Your task to perform on an android device: Open Google Chrome and click the shortcut for Amazon.com Image 0: 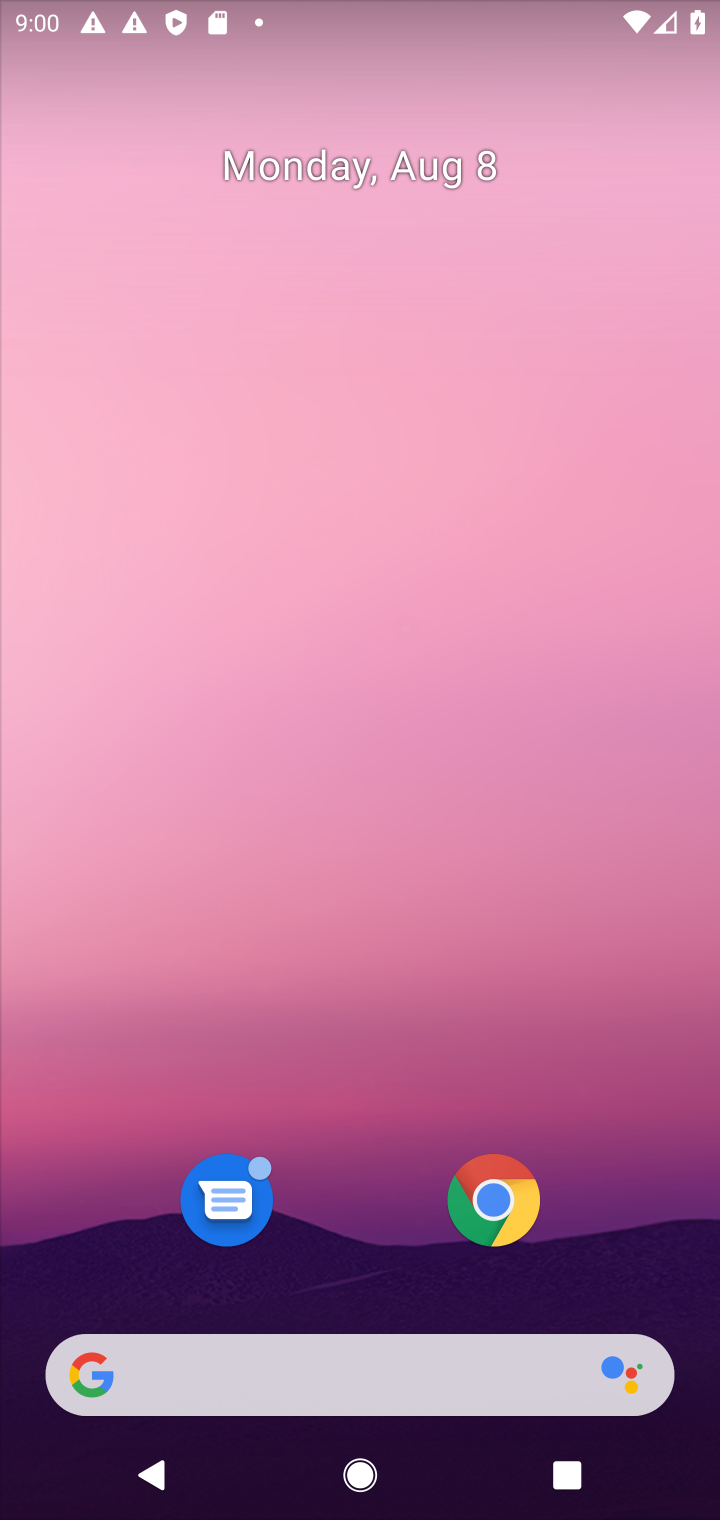
Step 0: click (493, 1191)
Your task to perform on an android device: Open Google Chrome and click the shortcut for Amazon.com Image 1: 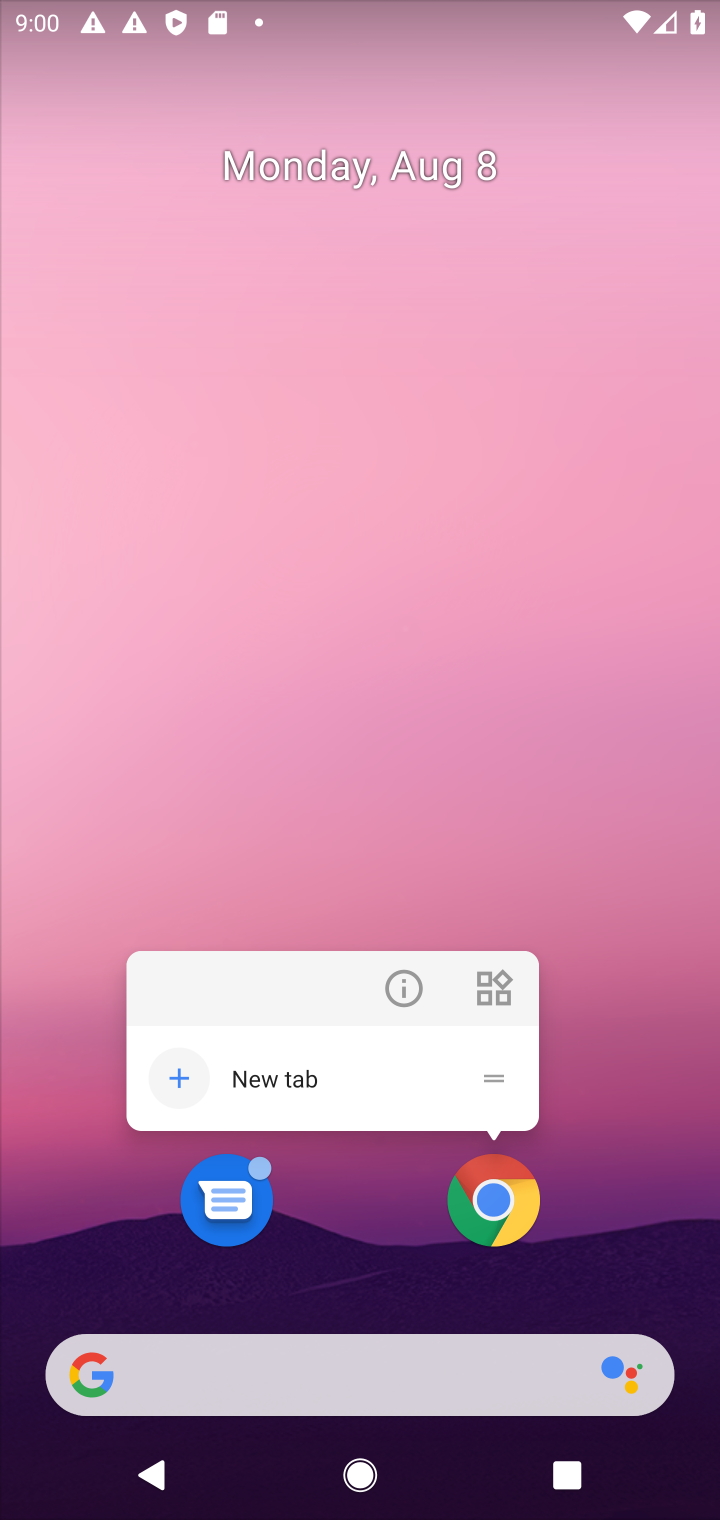
Step 1: click (493, 1193)
Your task to perform on an android device: Open Google Chrome and click the shortcut for Amazon.com Image 2: 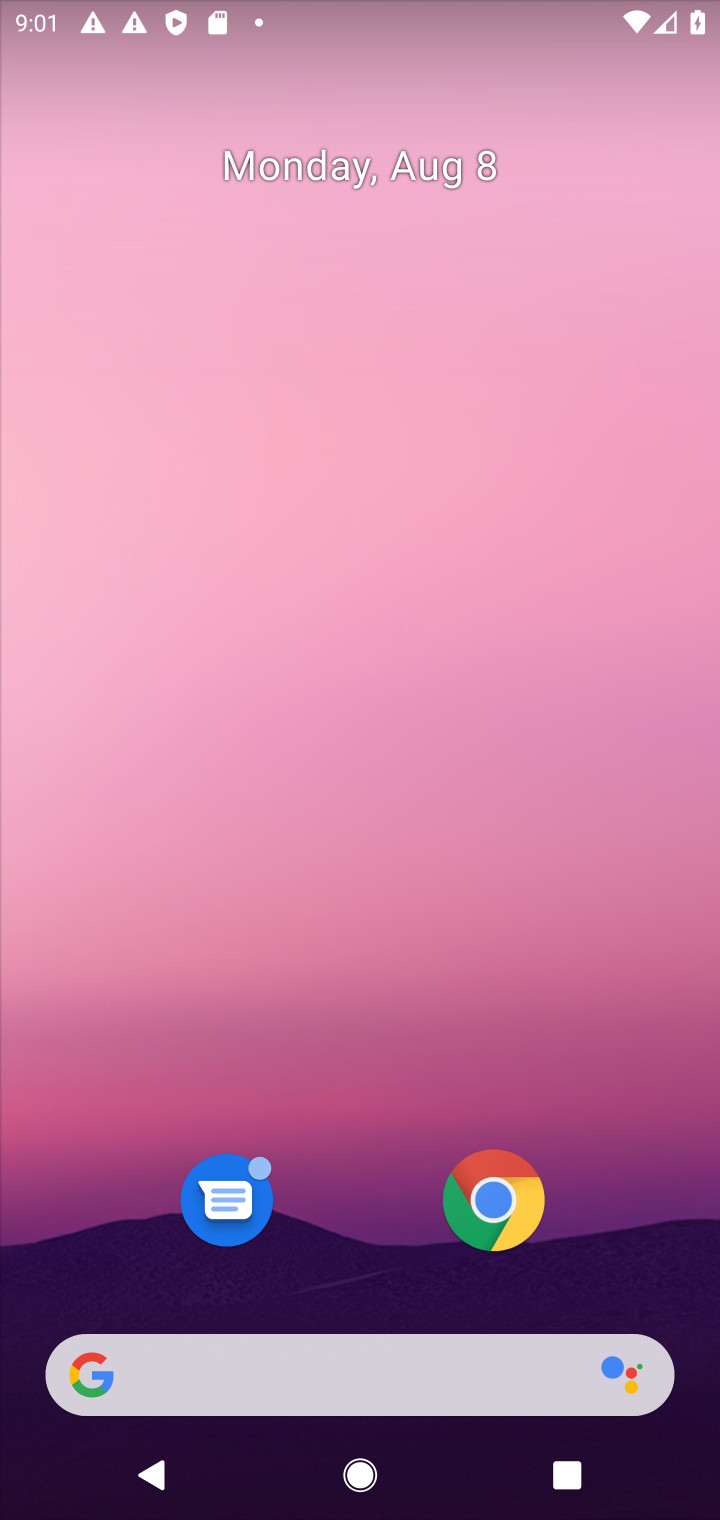
Step 2: click (493, 1198)
Your task to perform on an android device: Open Google Chrome and click the shortcut for Amazon.com Image 3: 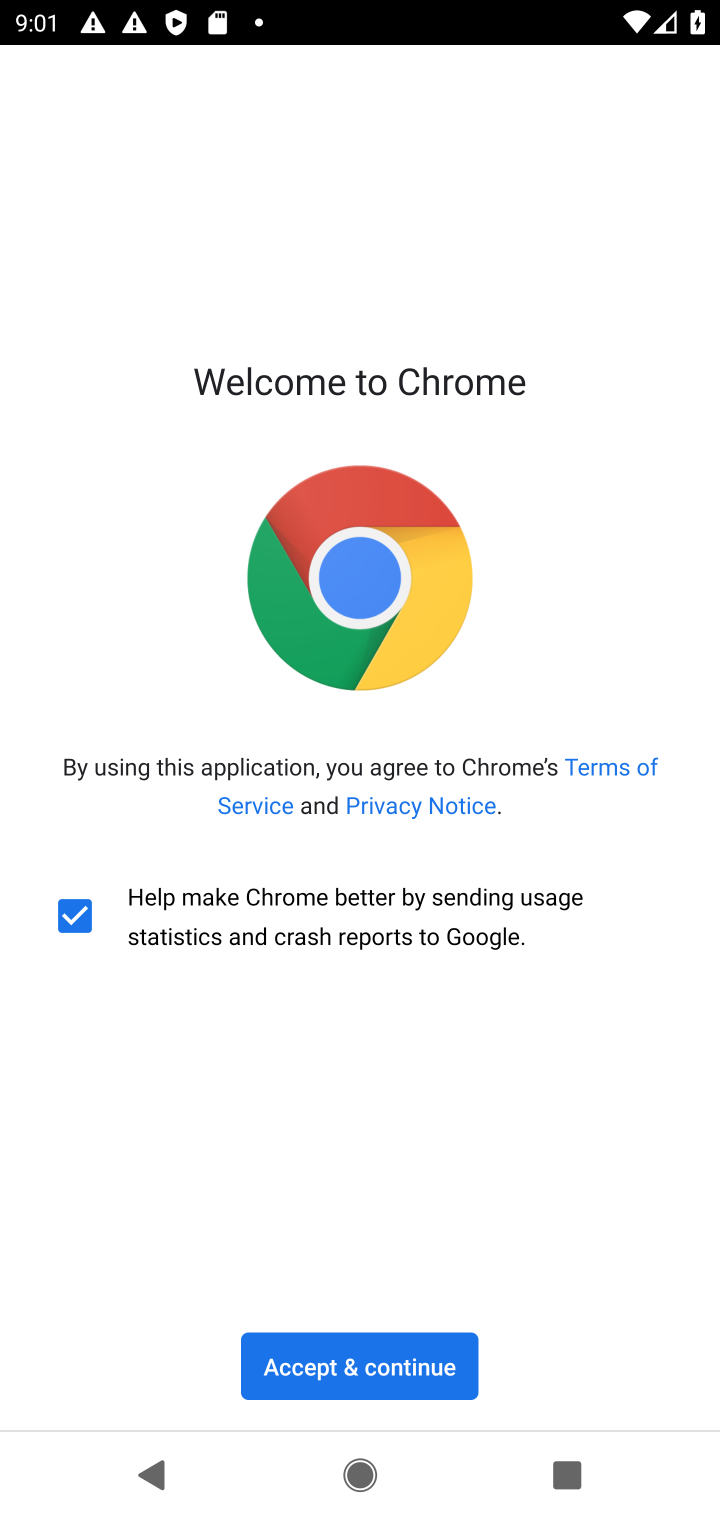
Step 3: click (343, 1352)
Your task to perform on an android device: Open Google Chrome and click the shortcut for Amazon.com Image 4: 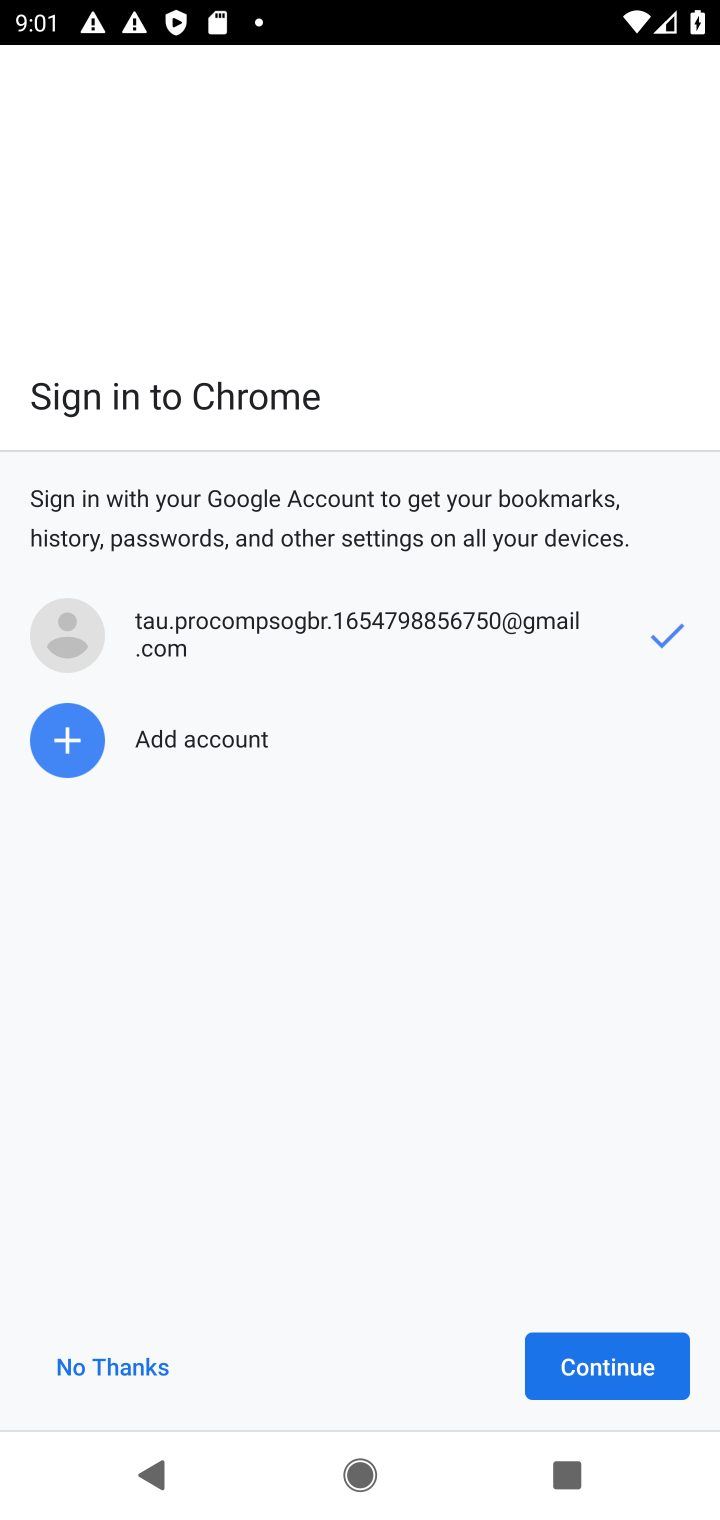
Step 4: click (594, 1359)
Your task to perform on an android device: Open Google Chrome and click the shortcut for Amazon.com Image 5: 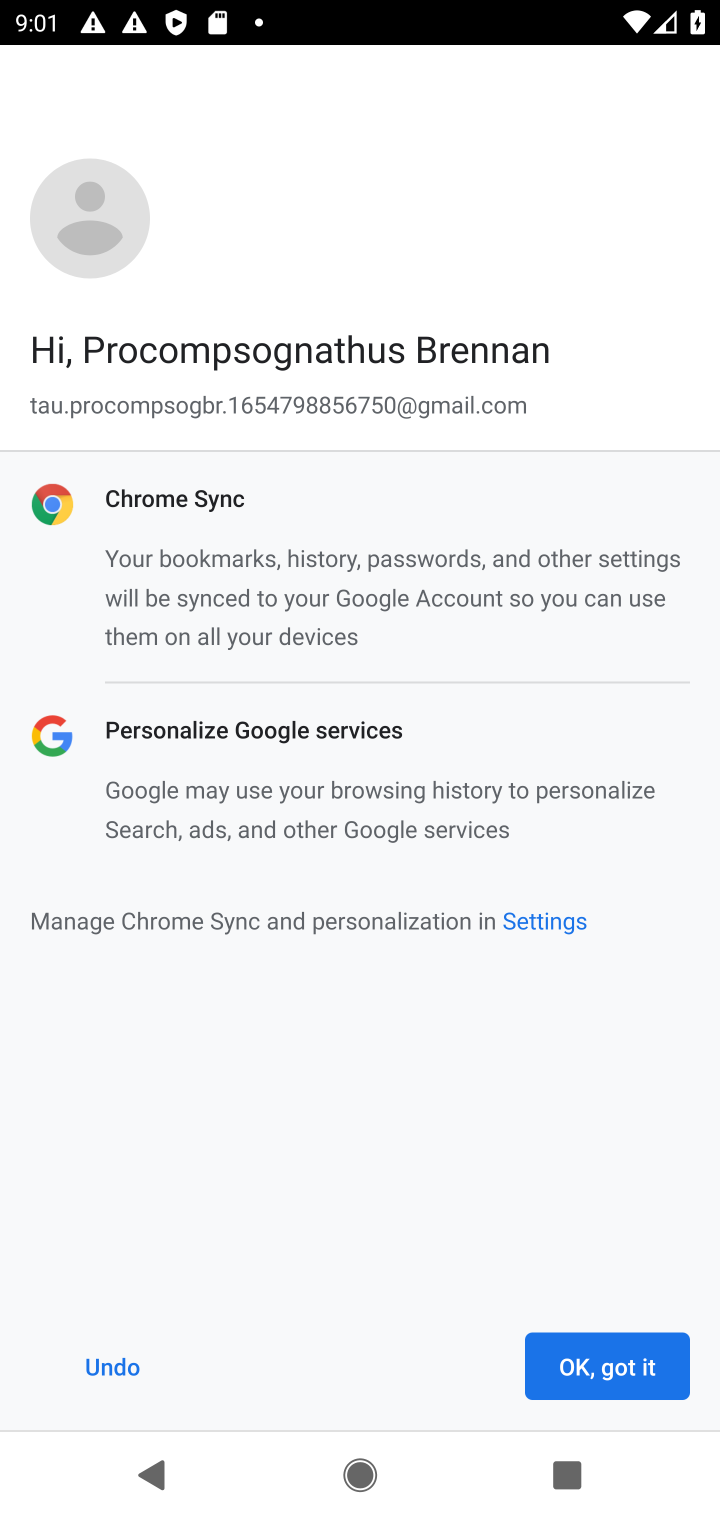
Step 5: click (634, 1362)
Your task to perform on an android device: Open Google Chrome and click the shortcut for Amazon.com Image 6: 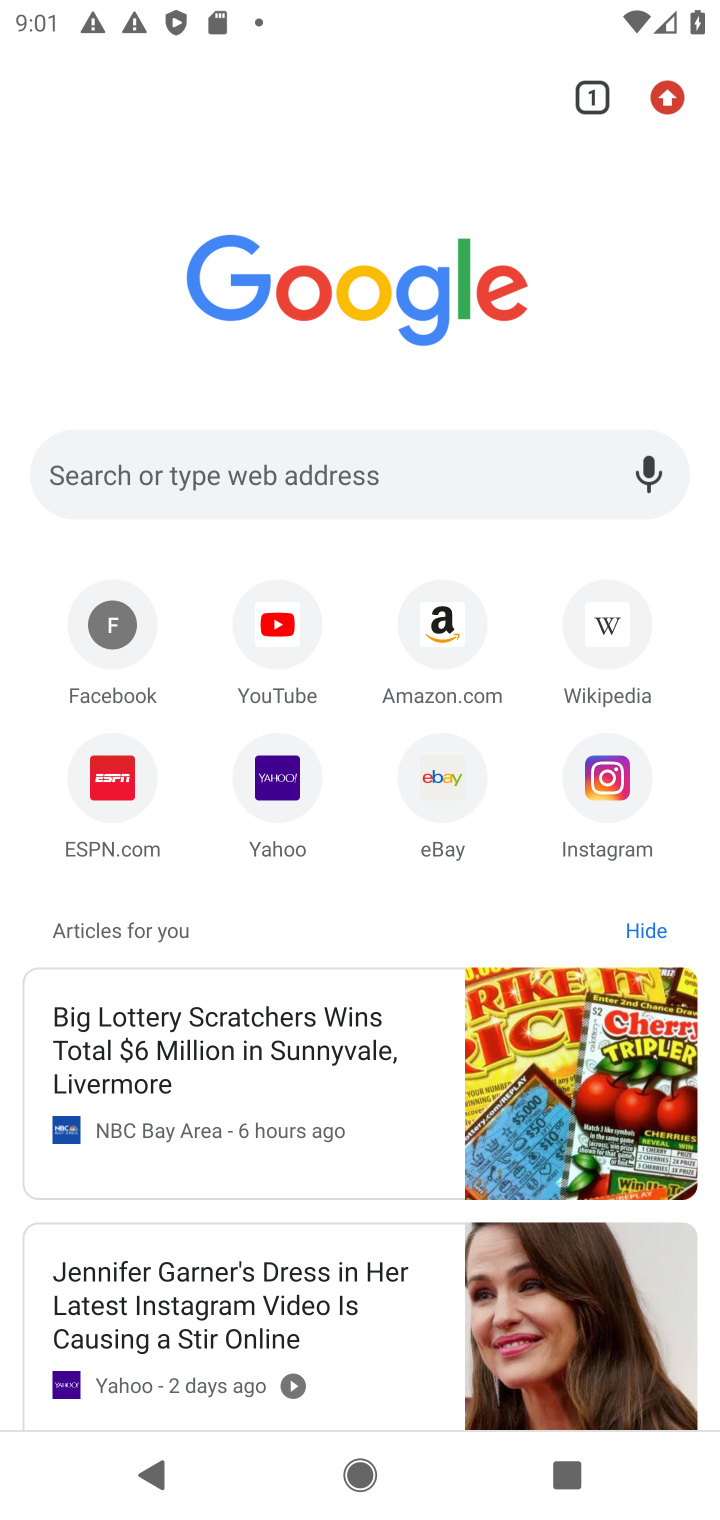
Step 6: click (434, 620)
Your task to perform on an android device: Open Google Chrome and click the shortcut for Amazon.com Image 7: 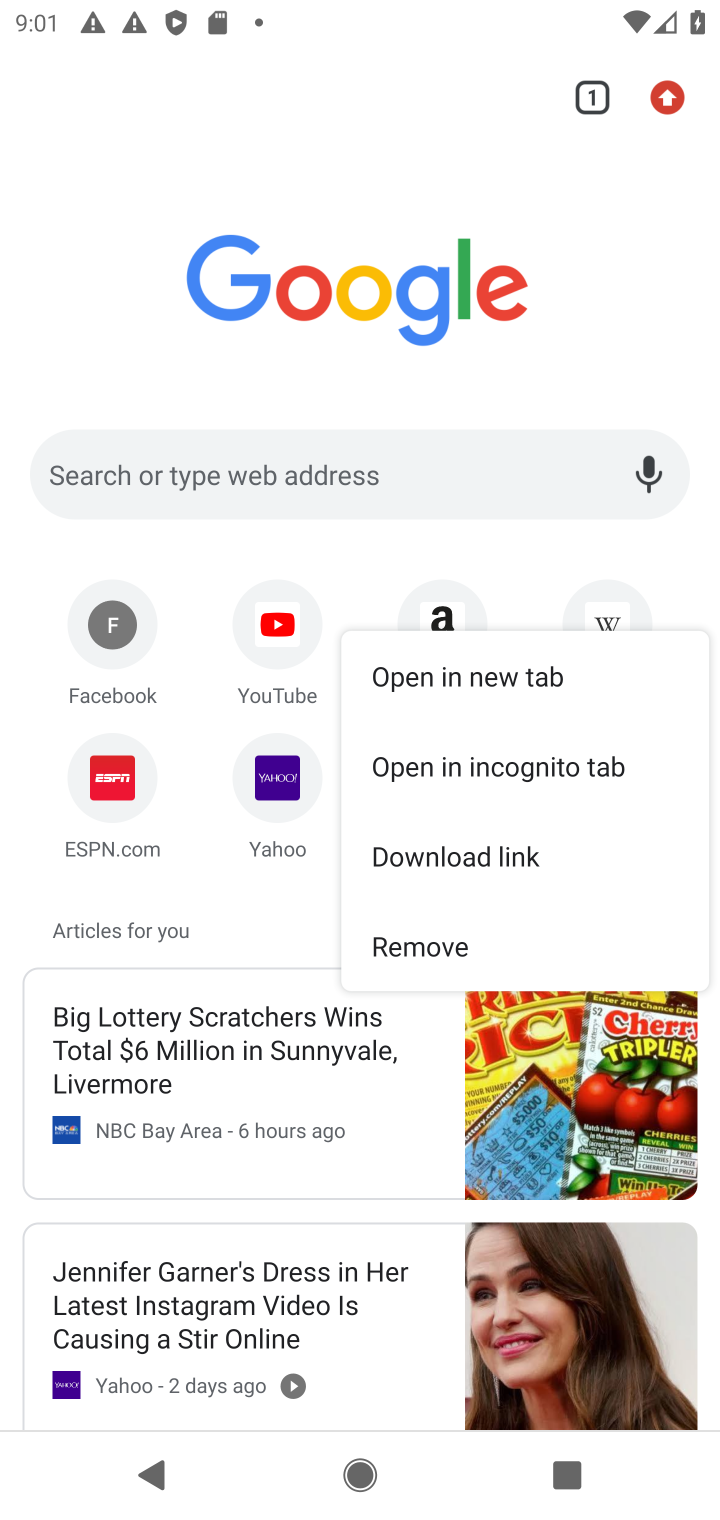
Step 7: click (447, 601)
Your task to perform on an android device: Open Google Chrome and click the shortcut for Amazon.com Image 8: 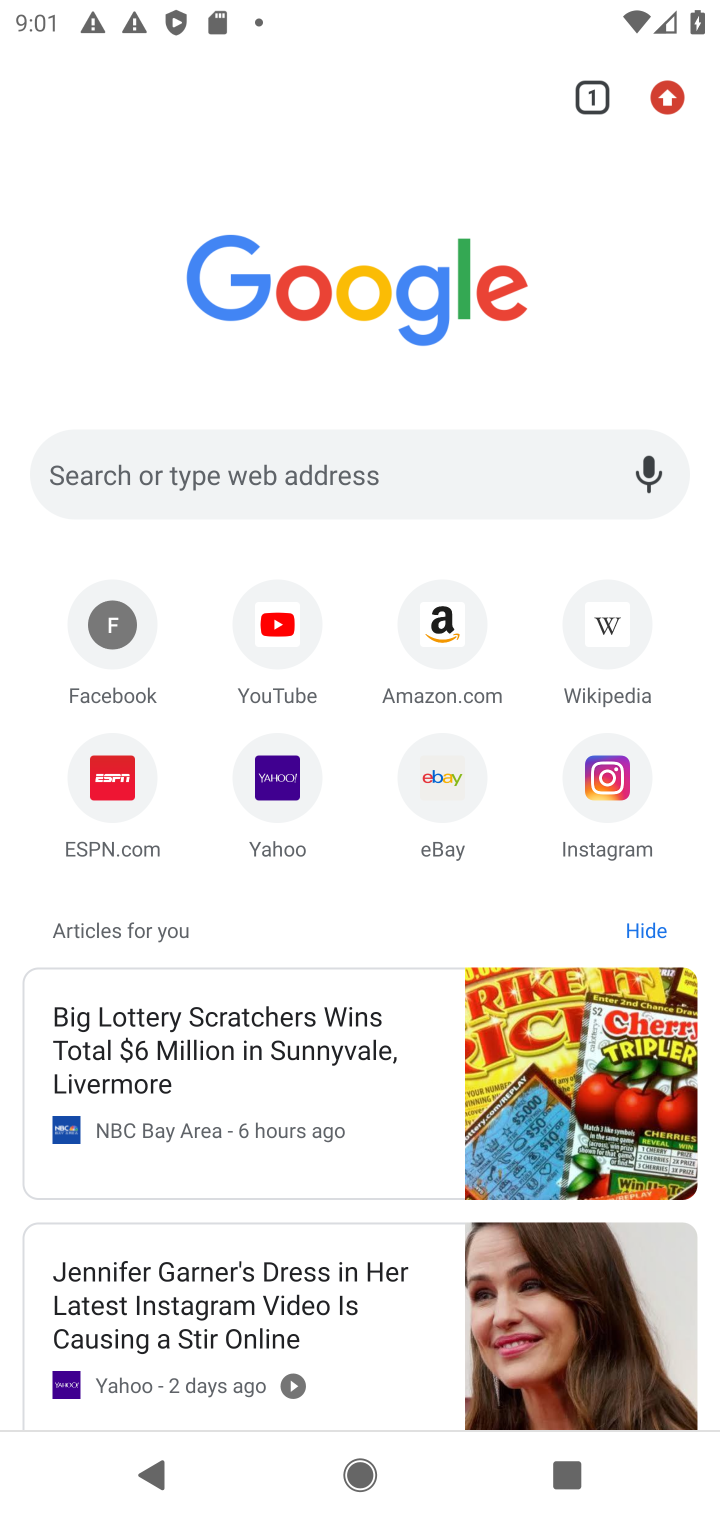
Step 8: click (436, 621)
Your task to perform on an android device: Open Google Chrome and click the shortcut for Amazon.com Image 9: 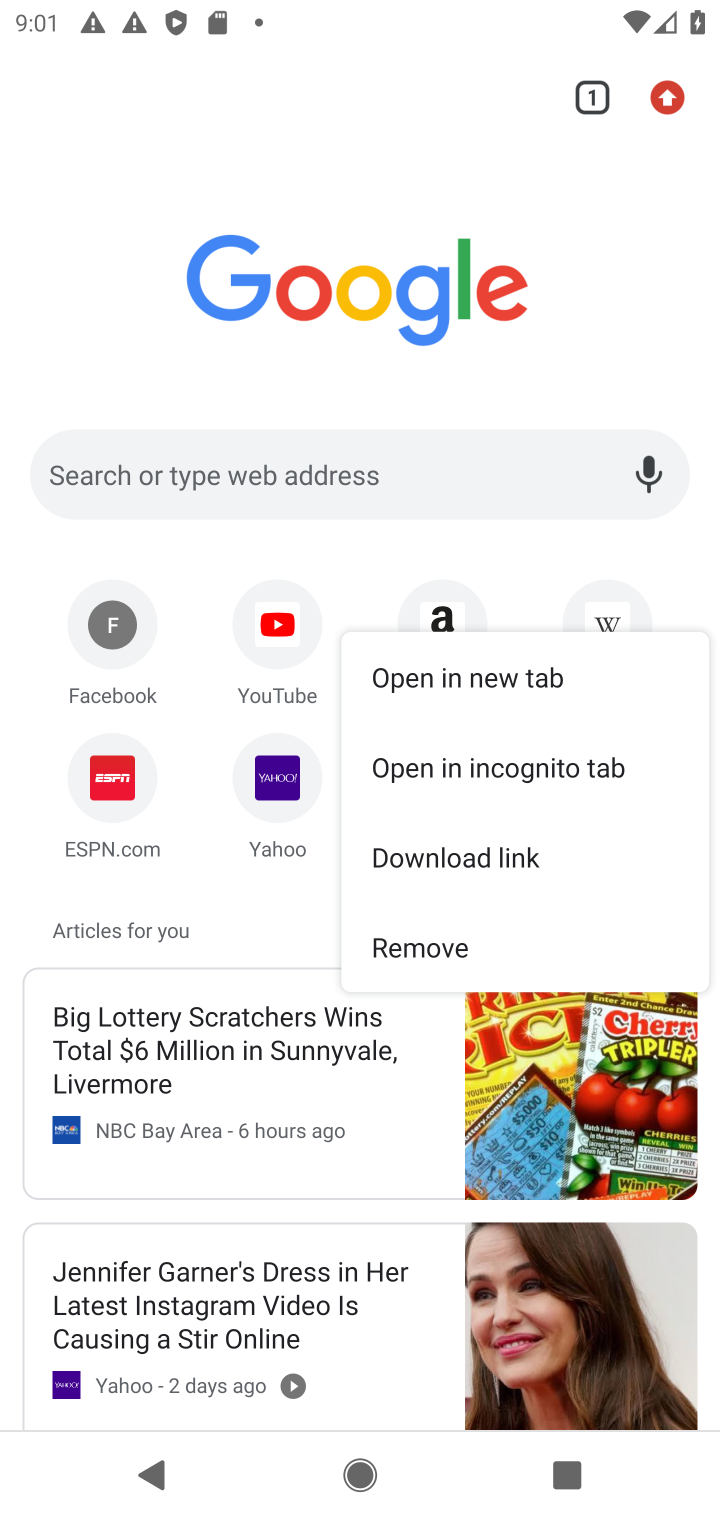
Step 9: click (436, 627)
Your task to perform on an android device: Open Google Chrome and click the shortcut for Amazon.com Image 10: 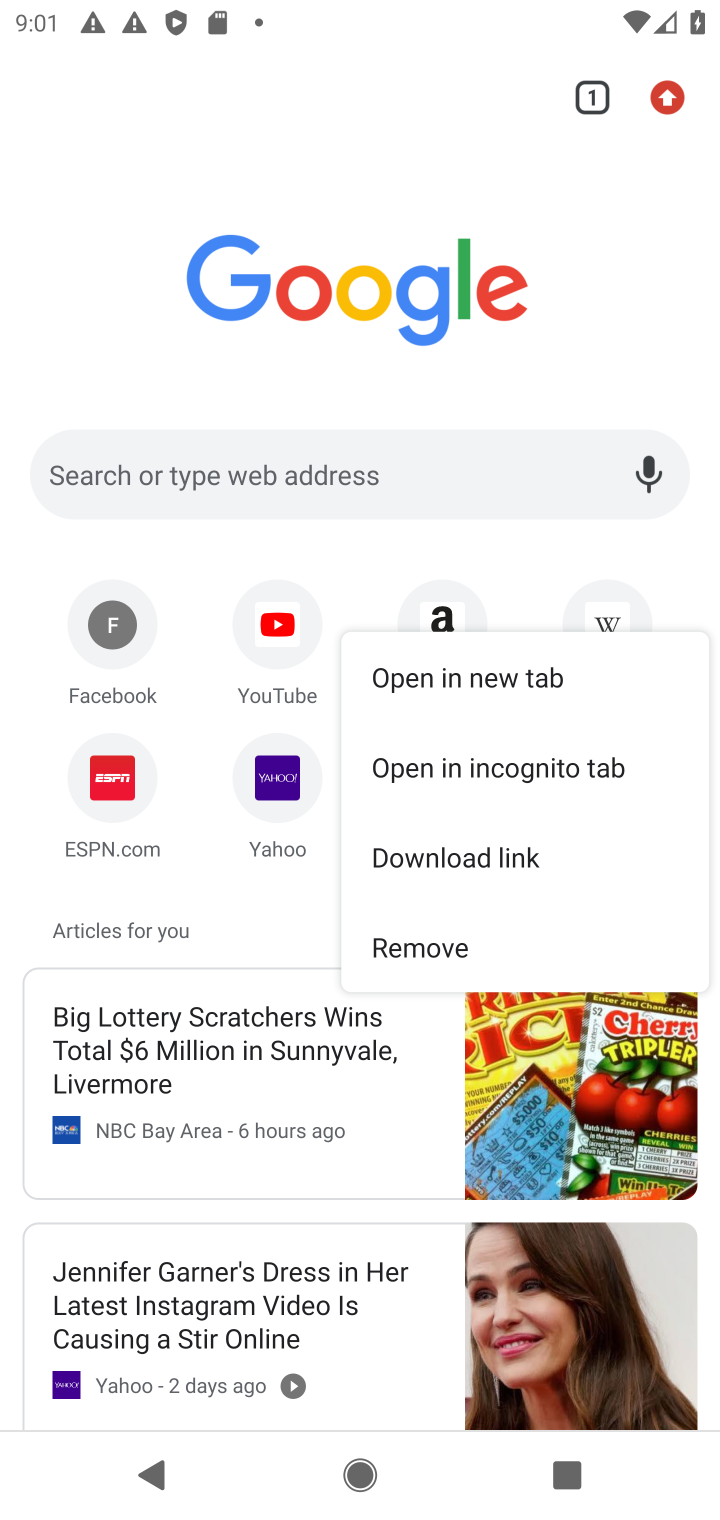
Step 10: click (447, 612)
Your task to perform on an android device: Open Google Chrome and click the shortcut for Amazon.com Image 11: 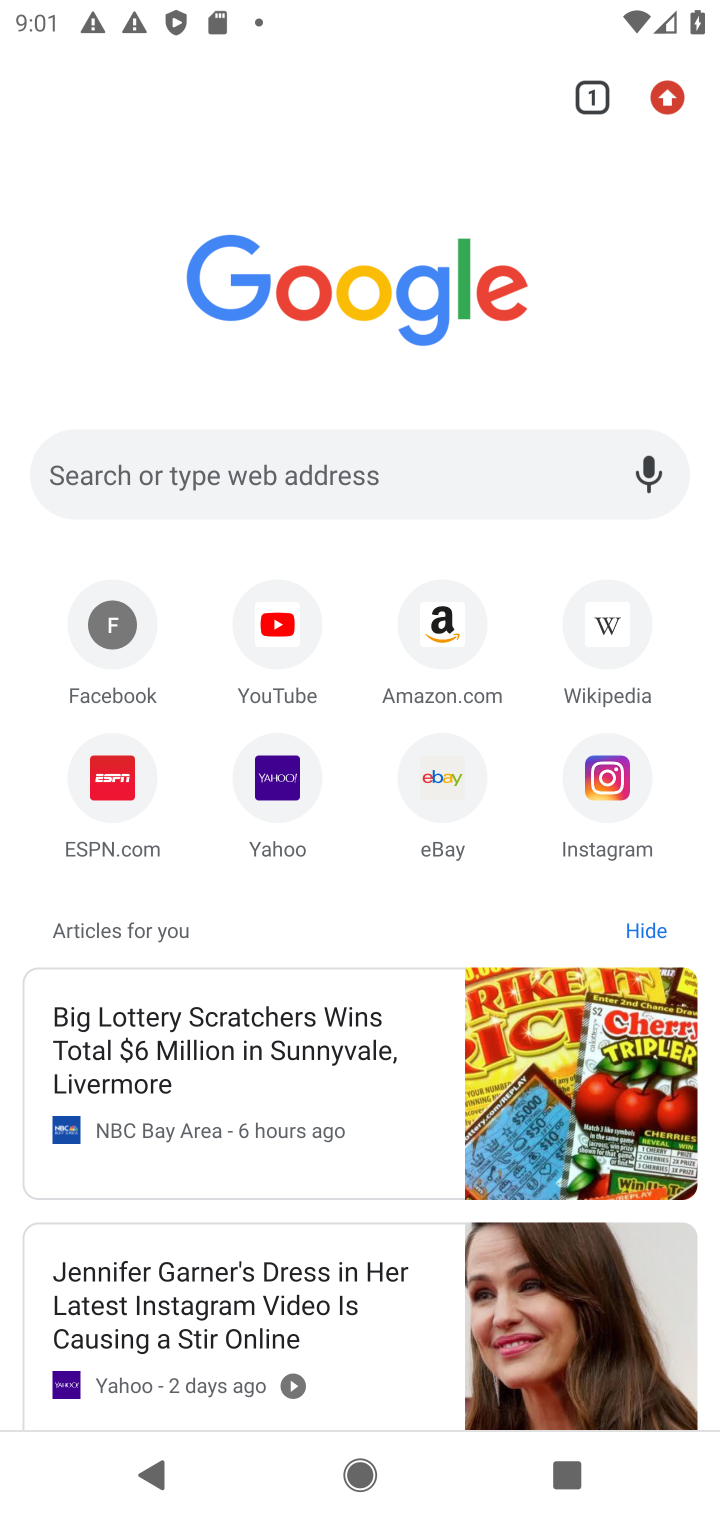
Step 11: click (445, 629)
Your task to perform on an android device: Open Google Chrome and click the shortcut for Amazon.com Image 12: 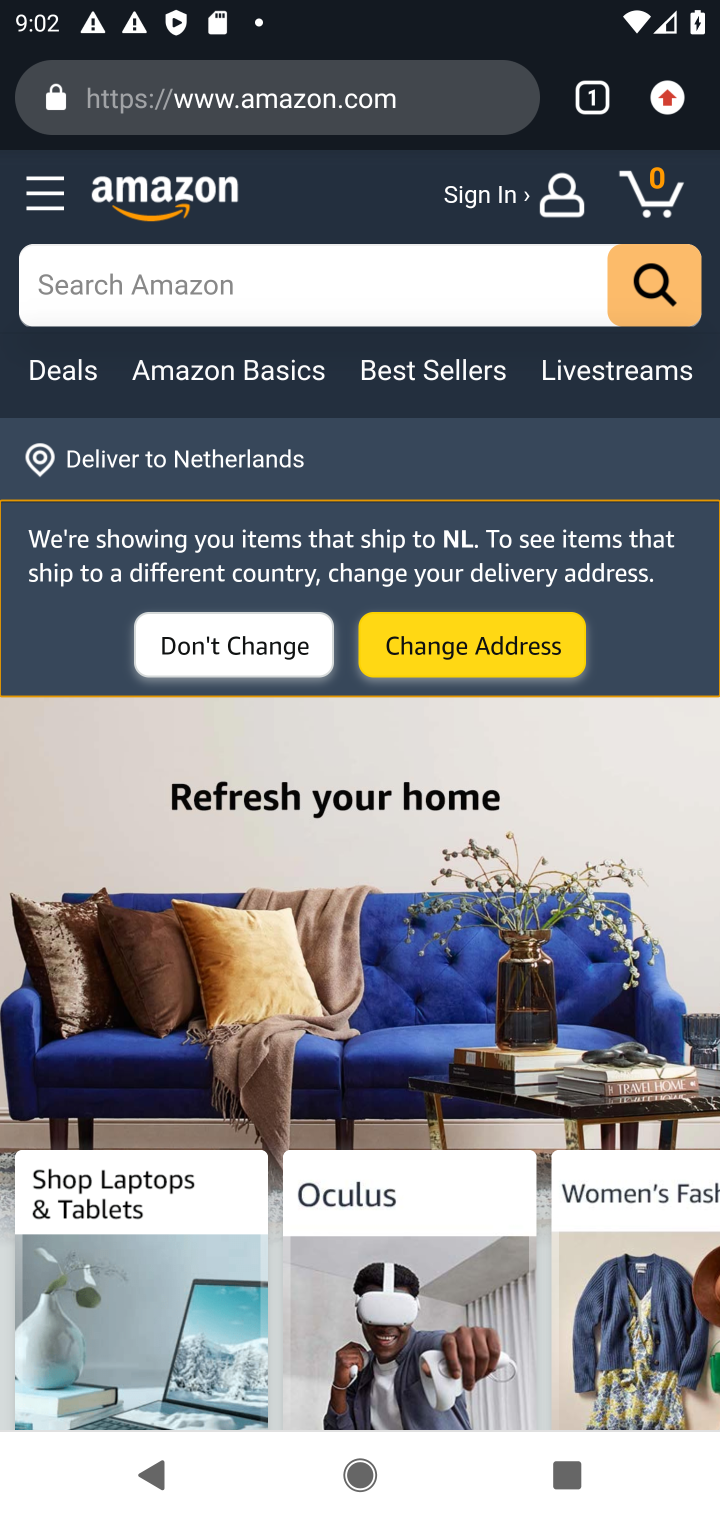
Step 12: task complete